Your task to perform on an android device: See recent photos Image 0: 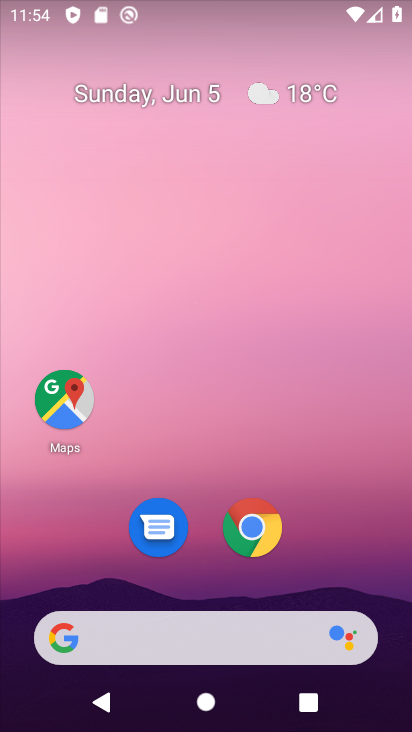
Step 0: drag from (198, 606) to (68, 73)
Your task to perform on an android device: See recent photos Image 1: 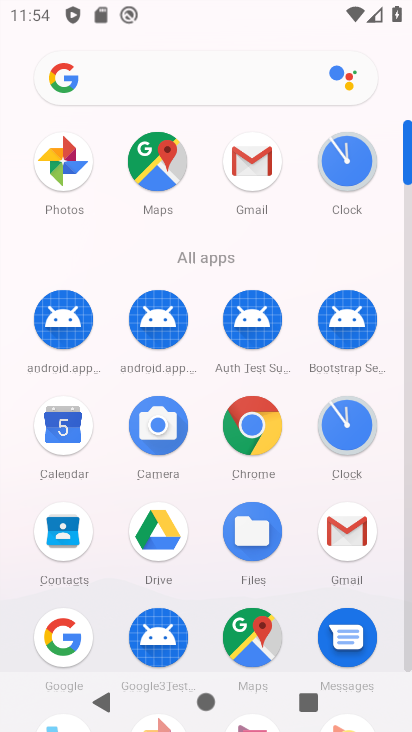
Step 1: drag from (109, 583) to (385, 32)
Your task to perform on an android device: See recent photos Image 2: 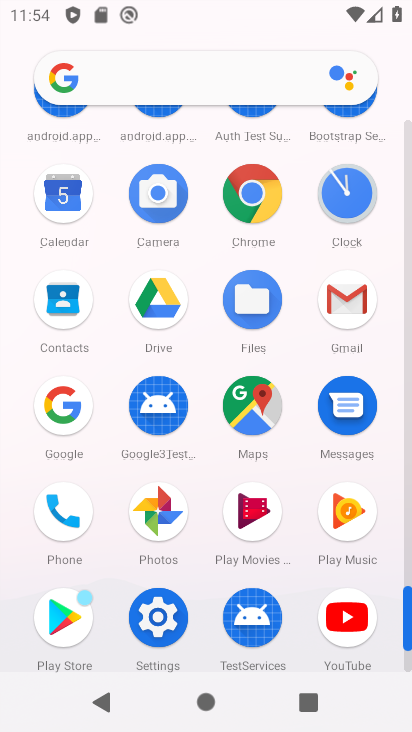
Step 2: click (164, 481)
Your task to perform on an android device: See recent photos Image 3: 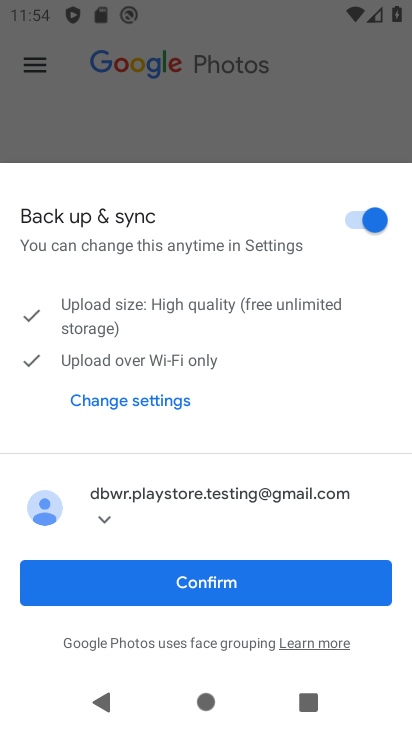
Step 3: click (219, 563)
Your task to perform on an android device: See recent photos Image 4: 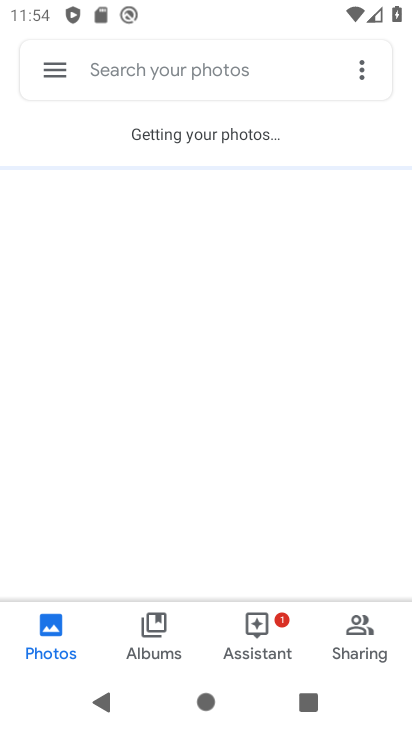
Step 4: task complete